Your task to perform on an android device: Search for vegetarian restaurants on Maps Image 0: 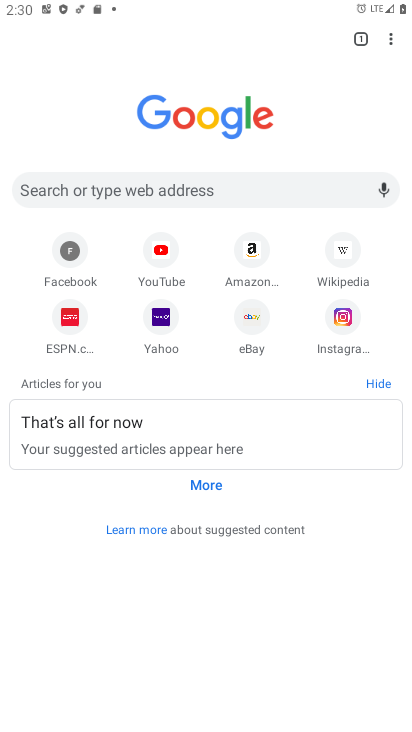
Step 0: press home button
Your task to perform on an android device: Search for vegetarian restaurants on Maps Image 1: 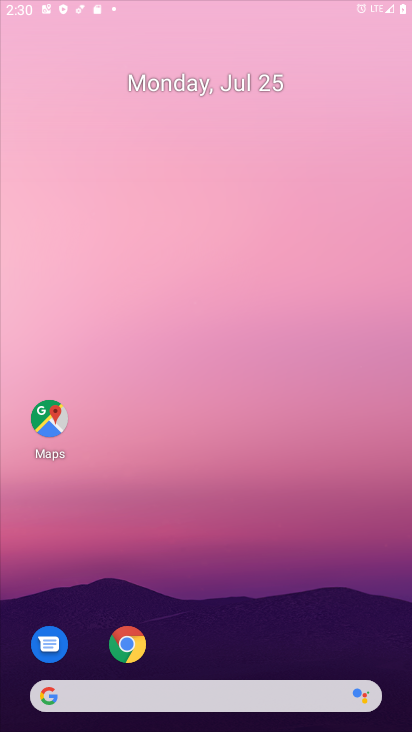
Step 1: drag from (377, 695) to (228, 0)
Your task to perform on an android device: Search for vegetarian restaurants on Maps Image 2: 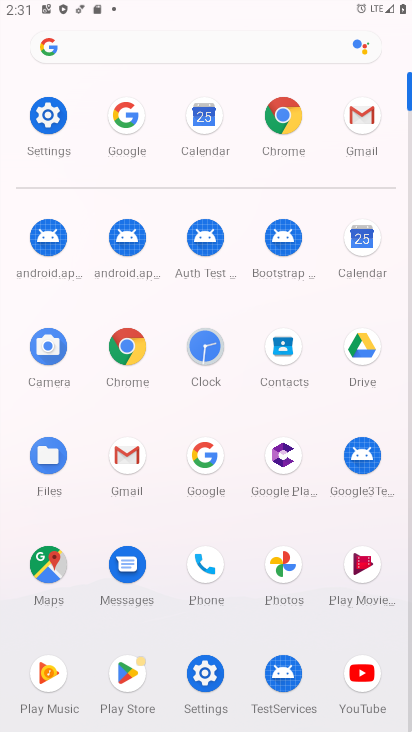
Step 2: click (59, 563)
Your task to perform on an android device: Search for vegetarian restaurants on Maps Image 3: 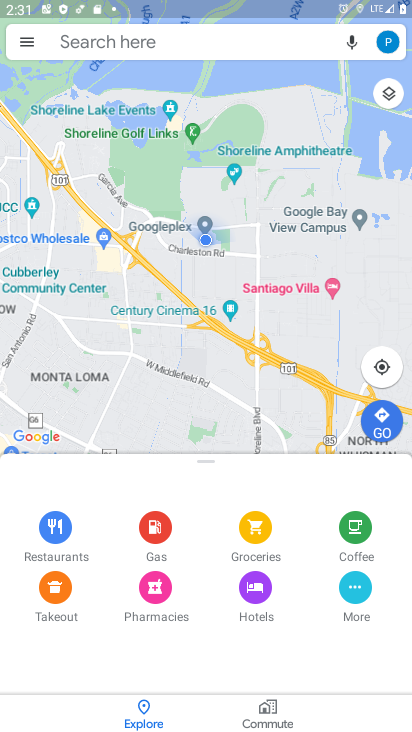
Step 3: click (122, 42)
Your task to perform on an android device: Search for vegetarian restaurants on Maps Image 4: 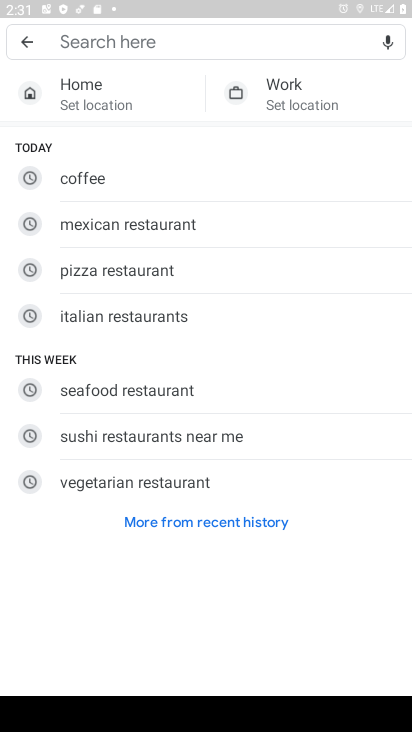
Step 4: click (81, 480)
Your task to perform on an android device: Search for vegetarian restaurants on Maps Image 5: 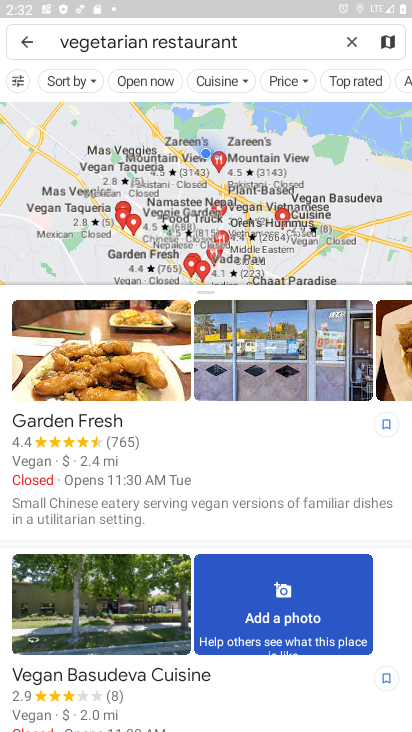
Step 5: task complete